Your task to perform on an android device: turn on bluetooth scan Image 0: 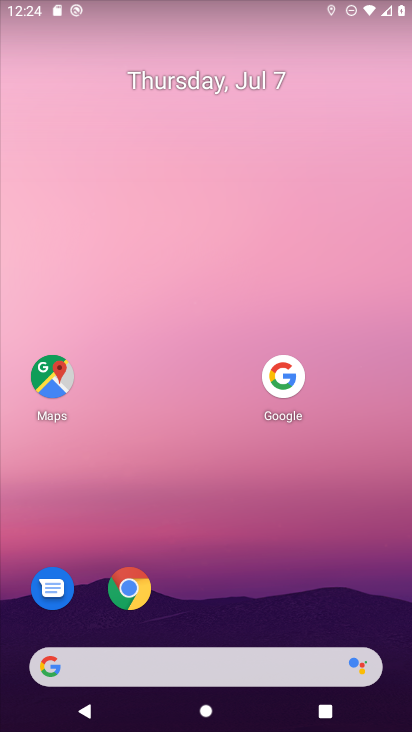
Step 0: drag from (215, 657) to (329, 120)
Your task to perform on an android device: turn on bluetooth scan Image 1: 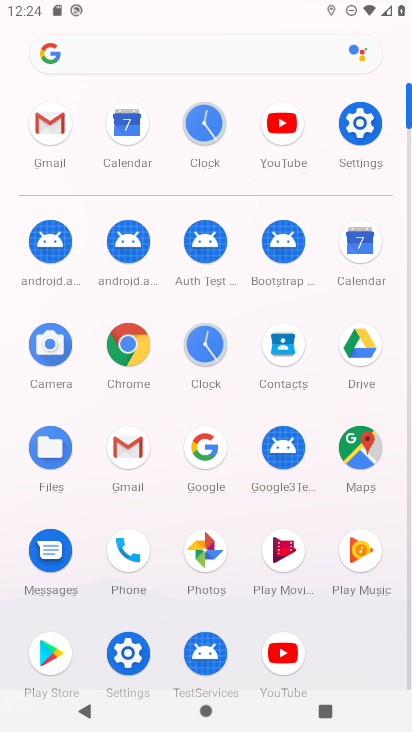
Step 1: click (361, 117)
Your task to perform on an android device: turn on bluetooth scan Image 2: 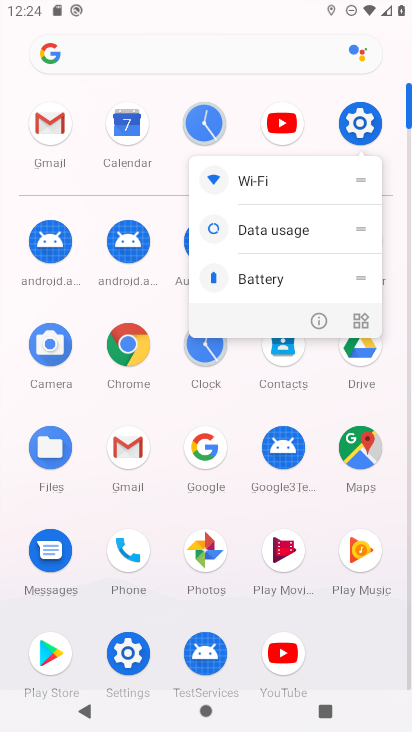
Step 2: click (360, 119)
Your task to perform on an android device: turn on bluetooth scan Image 3: 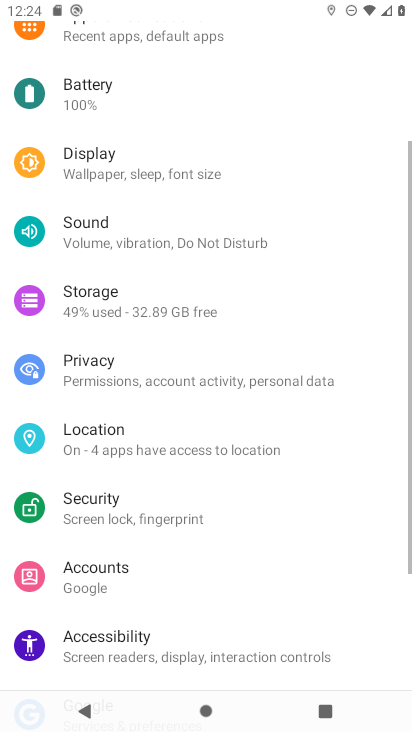
Step 3: click (360, 118)
Your task to perform on an android device: turn on bluetooth scan Image 4: 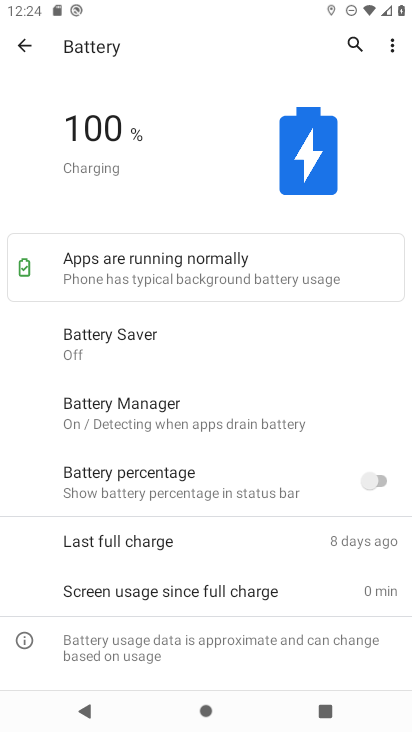
Step 4: click (26, 42)
Your task to perform on an android device: turn on bluetooth scan Image 5: 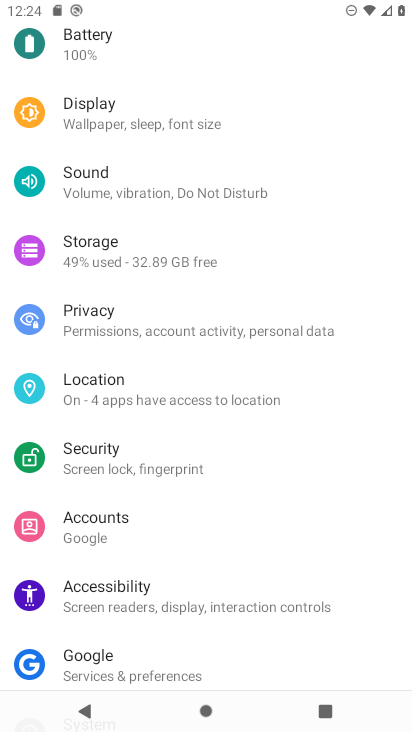
Step 5: click (111, 382)
Your task to perform on an android device: turn on bluetooth scan Image 6: 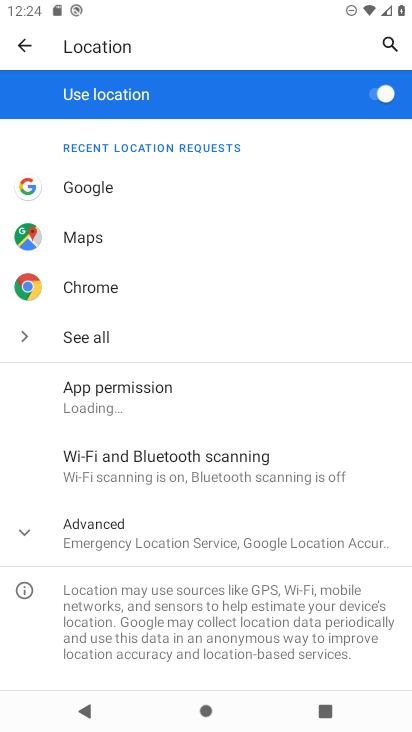
Step 6: click (143, 467)
Your task to perform on an android device: turn on bluetooth scan Image 7: 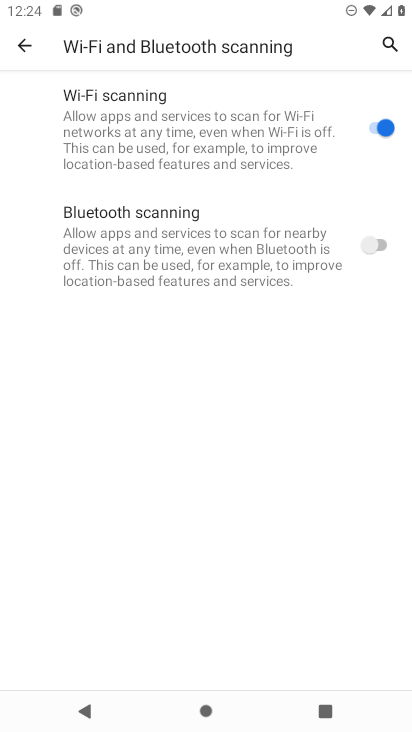
Step 7: click (383, 240)
Your task to perform on an android device: turn on bluetooth scan Image 8: 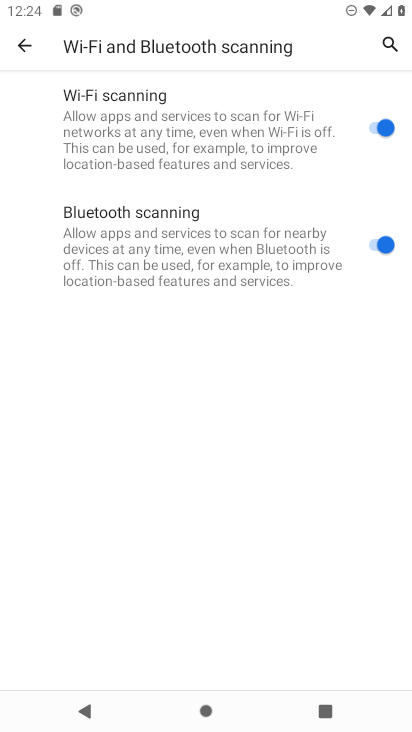
Step 8: task complete